Your task to perform on an android device: Go to Wikipedia Image 0: 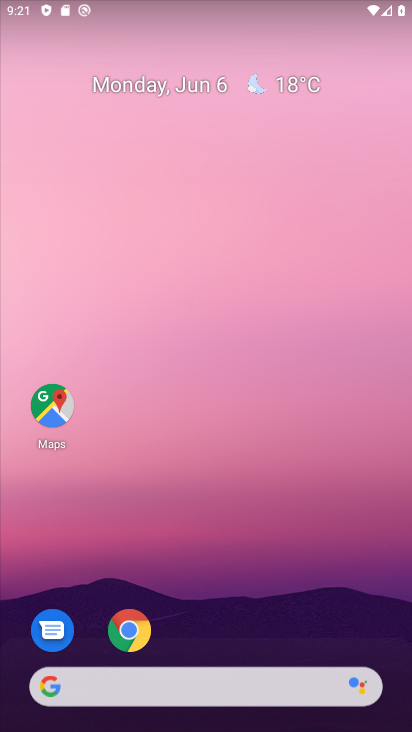
Step 0: click (120, 651)
Your task to perform on an android device: Go to Wikipedia Image 1: 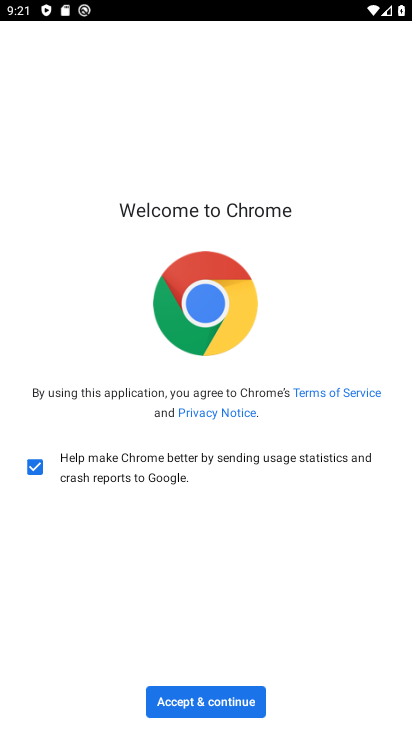
Step 1: click (208, 706)
Your task to perform on an android device: Go to Wikipedia Image 2: 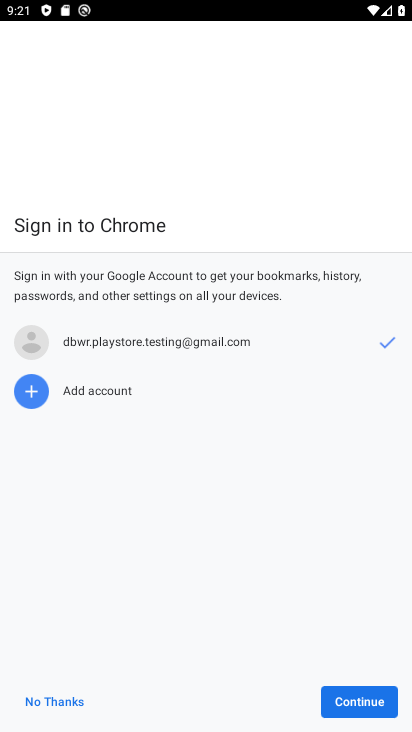
Step 2: click (371, 702)
Your task to perform on an android device: Go to Wikipedia Image 3: 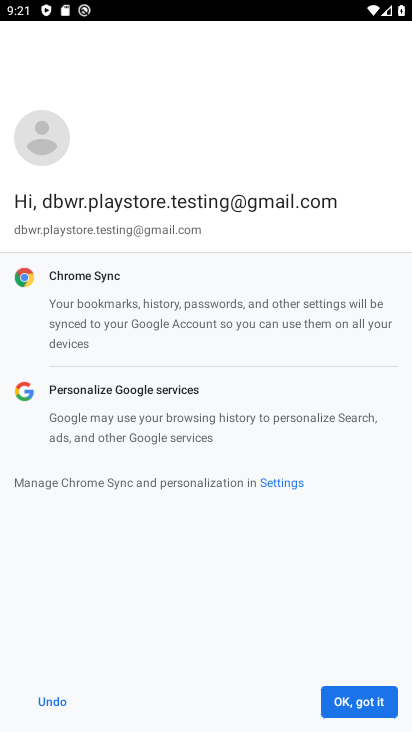
Step 3: click (371, 702)
Your task to perform on an android device: Go to Wikipedia Image 4: 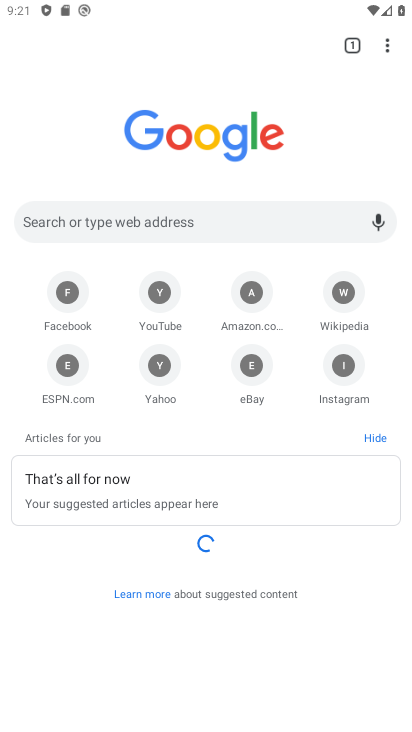
Step 4: click (345, 297)
Your task to perform on an android device: Go to Wikipedia Image 5: 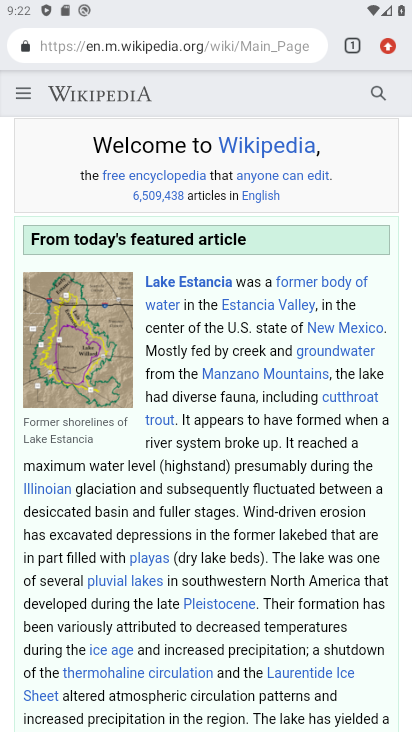
Step 5: task complete